Your task to perform on an android device: turn smart compose on in the gmail app Image 0: 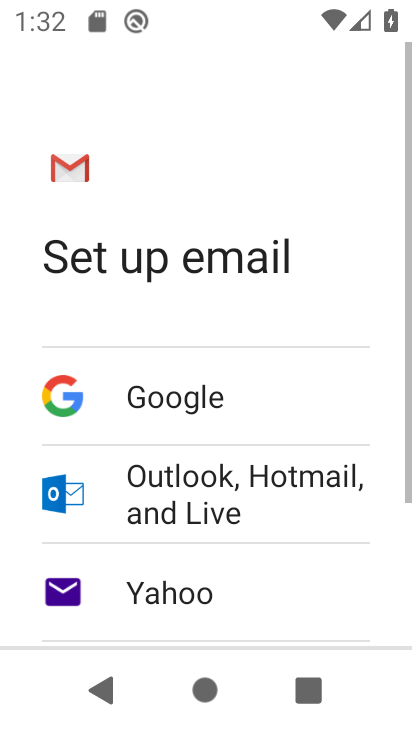
Step 0: press home button
Your task to perform on an android device: turn smart compose on in the gmail app Image 1: 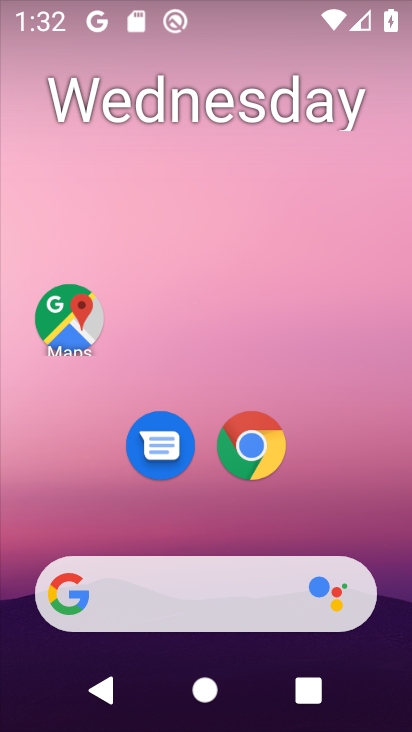
Step 1: drag from (32, 623) to (218, 261)
Your task to perform on an android device: turn smart compose on in the gmail app Image 2: 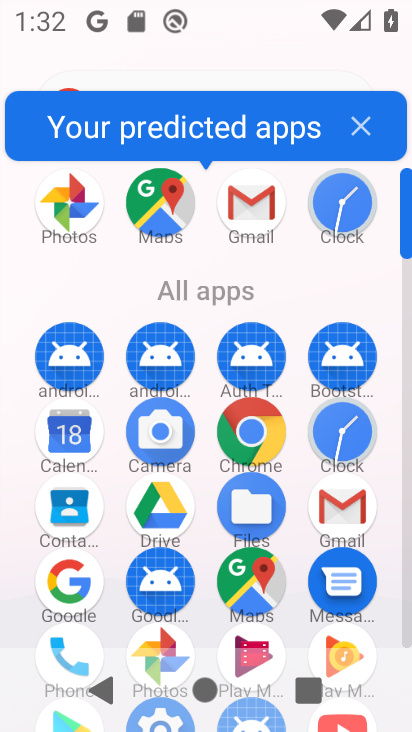
Step 2: click (262, 198)
Your task to perform on an android device: turn smart compose on in the gmail app Image 3: 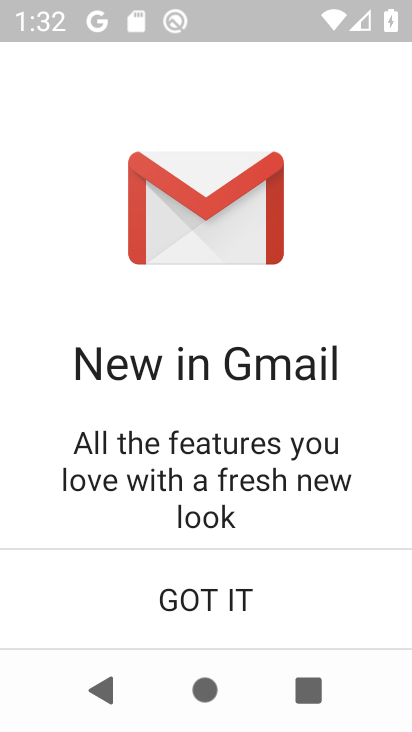
Step 3: click (219, 618)
Your task to perform on an android device: turn smart compose on in the gmail app Image 4: 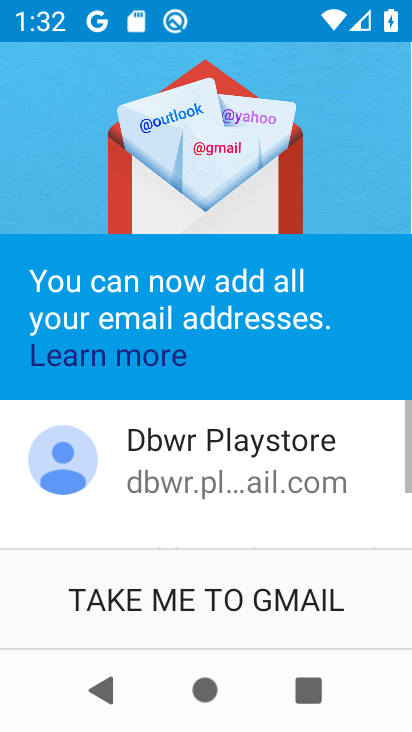
Step 4: click (224, 605)
Your task to perform on an android device: turn smart compose on in the gmail app Image 5: 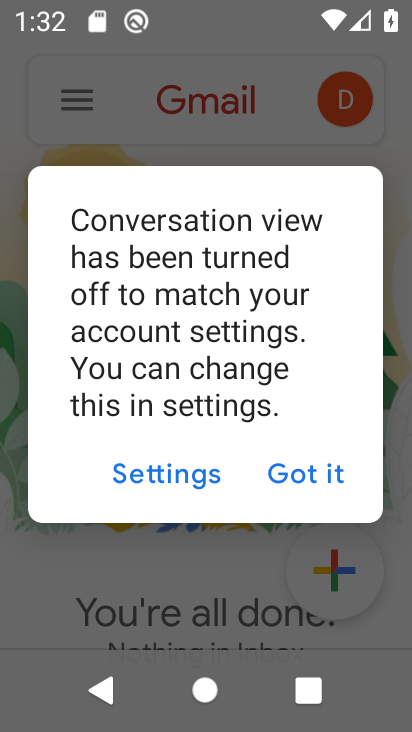
Step 5: click (299, 469)
Your task to perform on an android device: turn smart compose on in the gmail app Image 6: 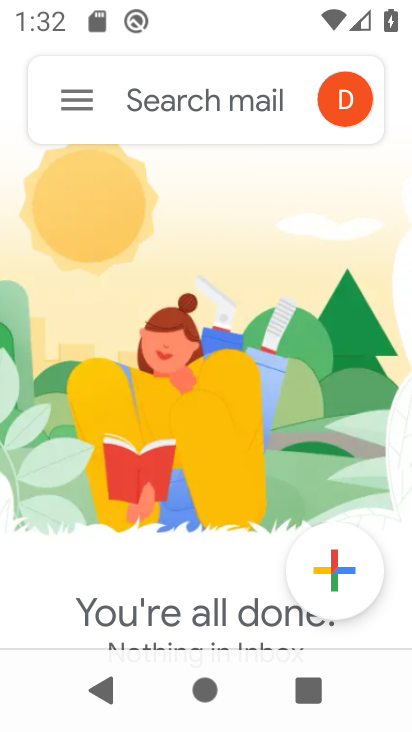
Step 6: click (74, 104)
Your task to perform on an android device: turn smart compose on in the gmail app Image 7: 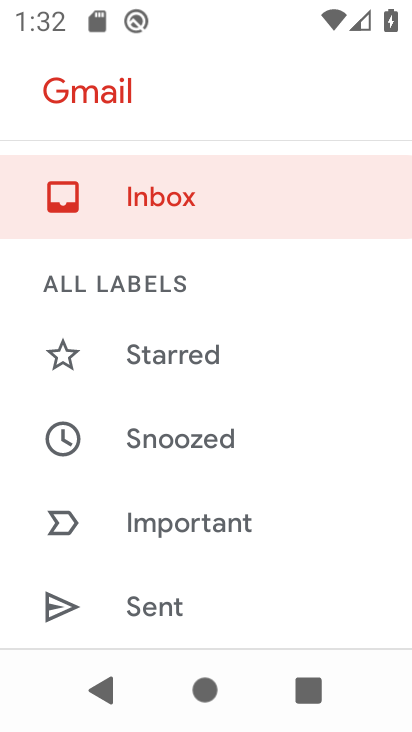
Step 7: drag from (22, 557) to (236, 222)
Your task to perform on an android device: turn smart compose on in the gmail app Image 8: 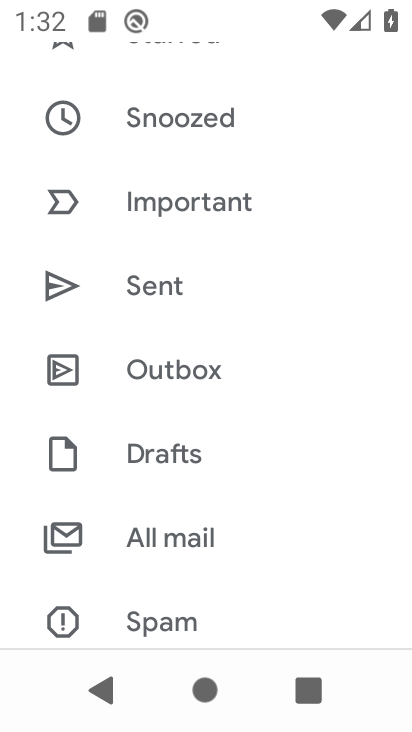
Step 8: drag from (17, 603) to (292, 190)
Your task to perform on an android device: turn smart compose on in the gmail app Image 9: 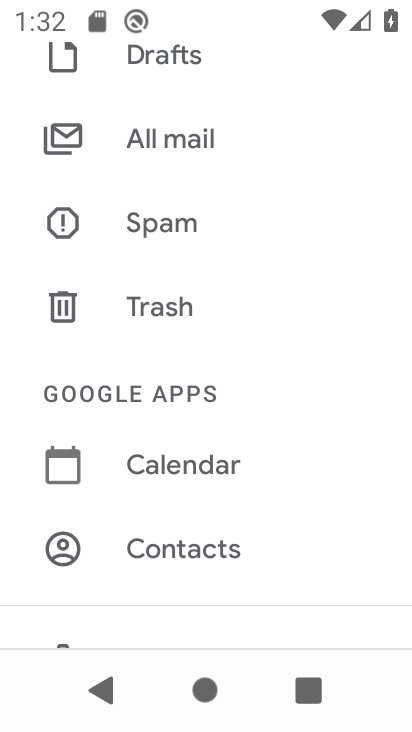
Step 9: drag from (95, 466) to (209, 269)
Your task to perform on an android device: turn smart compose on in the gmail app Image 10: 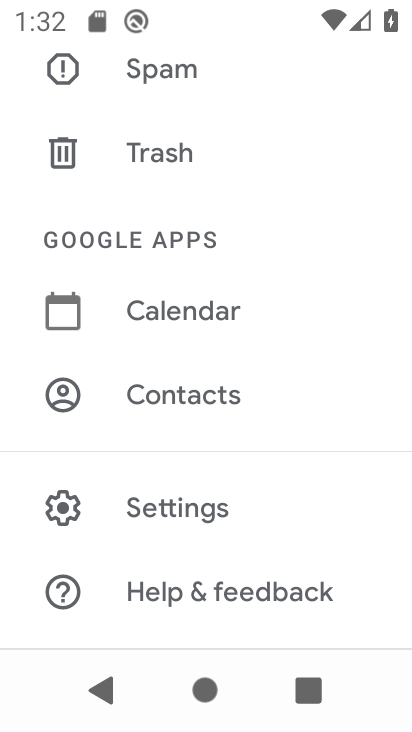
Step 10: click (116, 510)
Your task to perform on an android device: turn smart compose on in the gmail app Image 11: 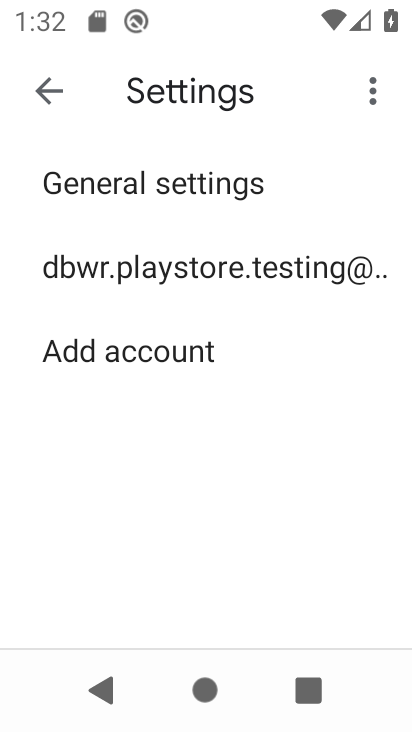
Step 11: click (267, 277)
Your task to perform on an android device: turn smart compose on in the gmail app Image 12: 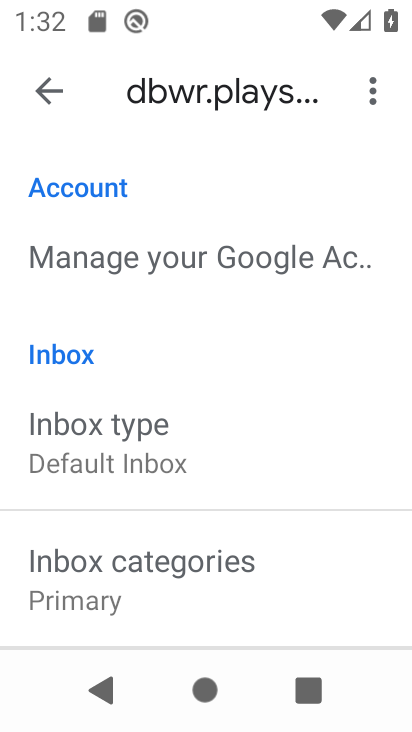
Step 12: task complete